Your task to perform on an android device: Go to Amazon Image 0: 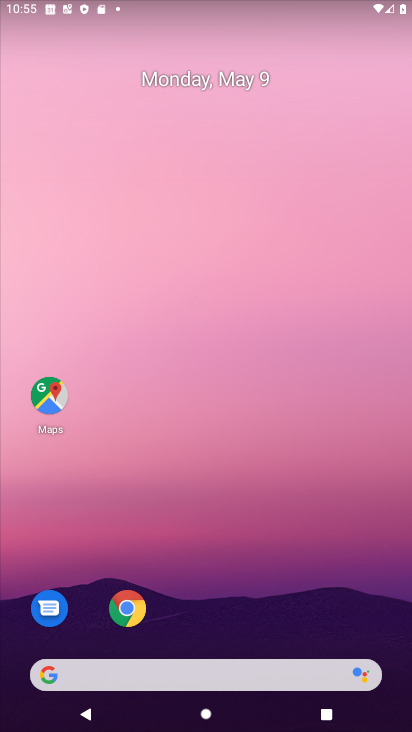
Step 0: click (143, 630)
Your task to perform on an android device: Go to Amazon Image 1: 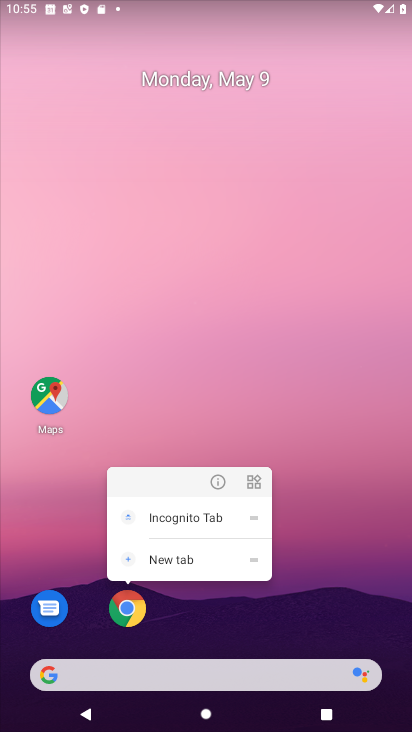
Step 1: click (127, 627)
Your task to perform on an android device: Go to Amazon Image 2: 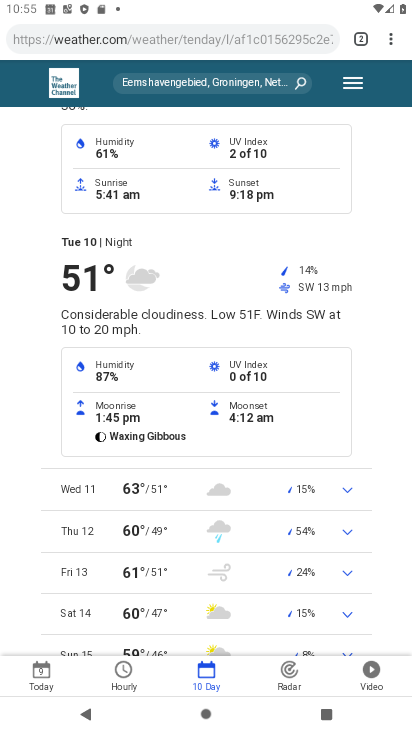
Step 2: click (352, 26)
Your task to perform on an android device: Go to Amazon Image 3: 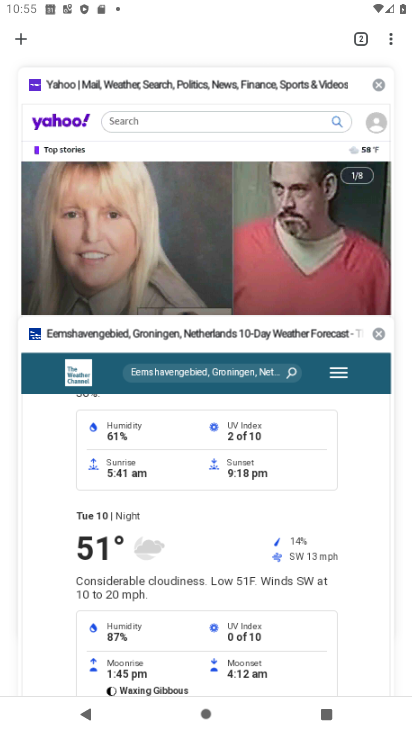
Step 3: click (19, 42)
Your task to perform on an android device: Go to Amazon Image 4: 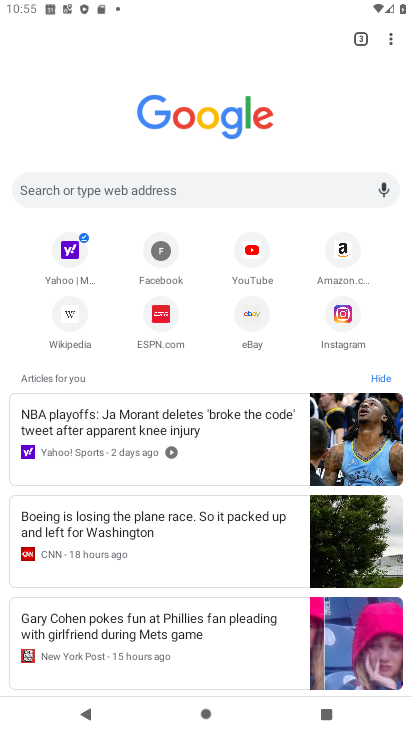
Step 4: click (354, 256)
Your task to perform on an android device: Go to Amazon Image 5: 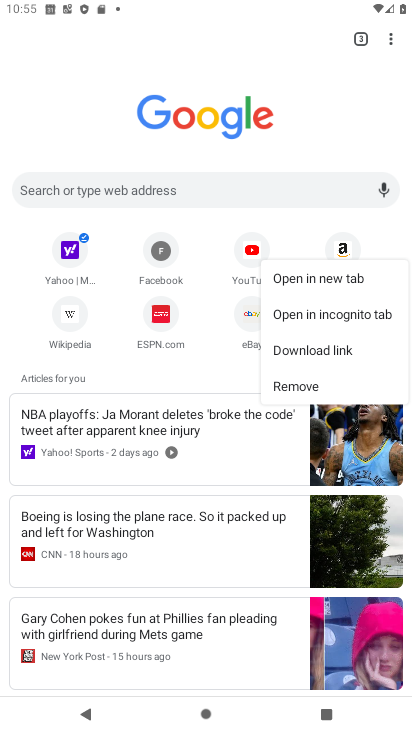
Step 5: click (343, 243)
Your task to perform on an android device: Go to Amazon Image 6: 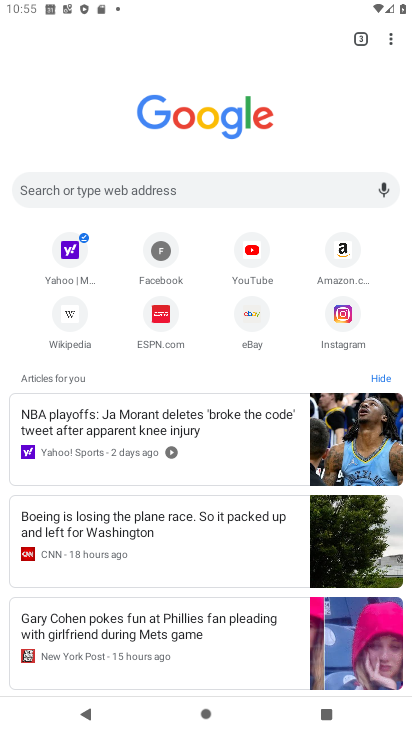
Step 6: click (351, 264)
Your task to perform on an android device: Go to Amazon Image 7: 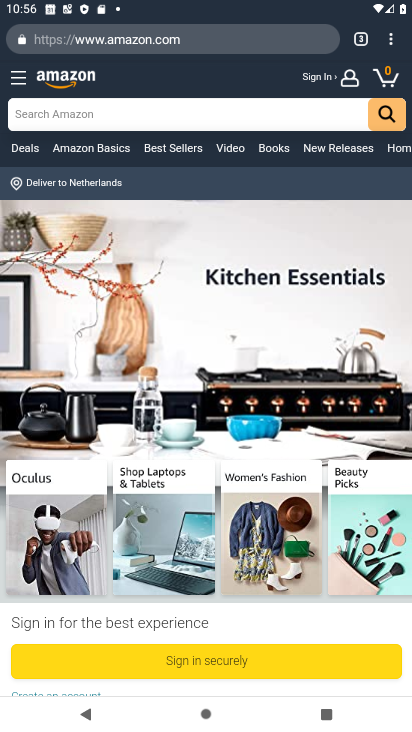
Step 7: task complete